Your task to perform on an android device: When is my next appointment? Image 0: 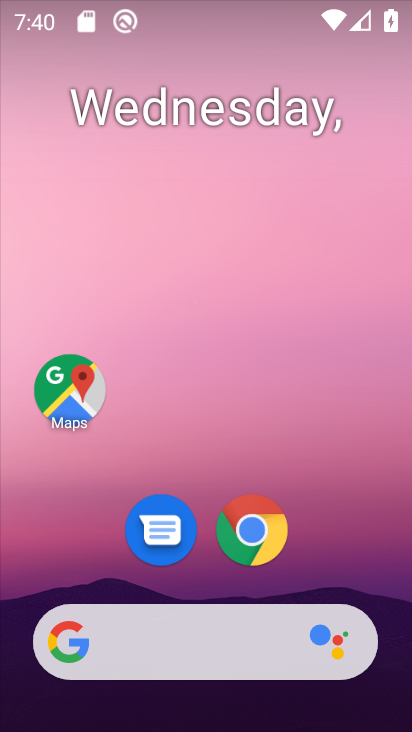
Step 0: drag from (400, 637) to (328, 121)
Your task to perform on an android device: When is my next appointment? Image 1: 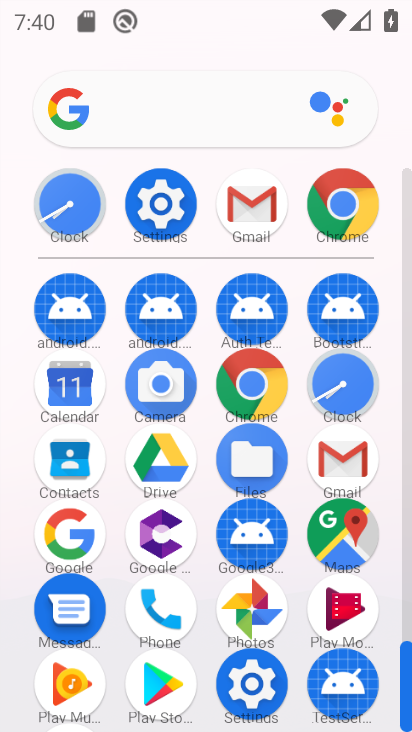
Step 1: click (73, 410)
Your task to perform on an android device: When is my next appointment? Image 2: 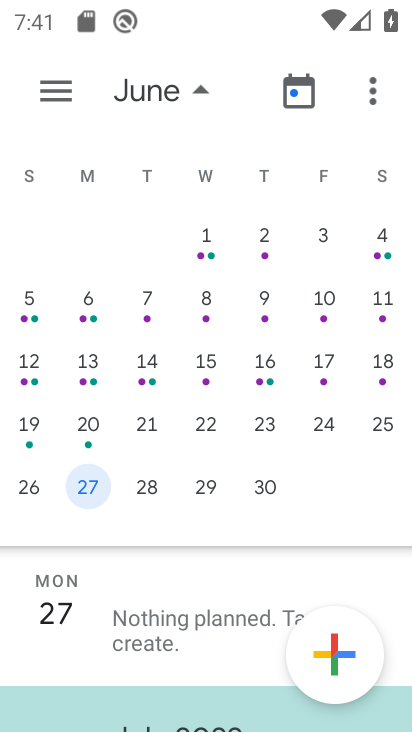
Step 2: task complete